Your task to perform on an android device: Go to Google maps Image 0: 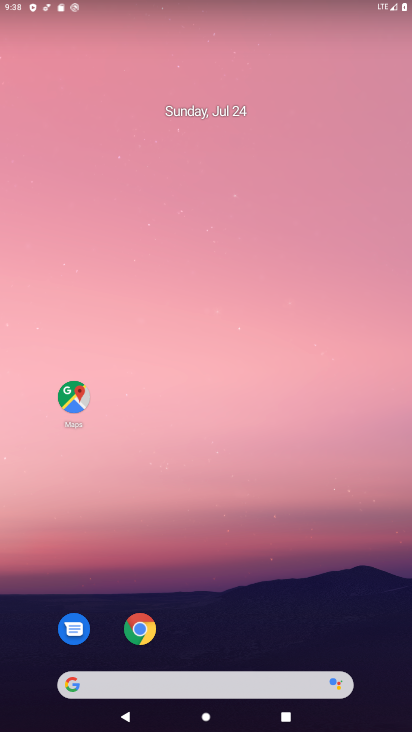
Step 0: press home button
Your task to perform on an android device: Go to Google maps Image 1: 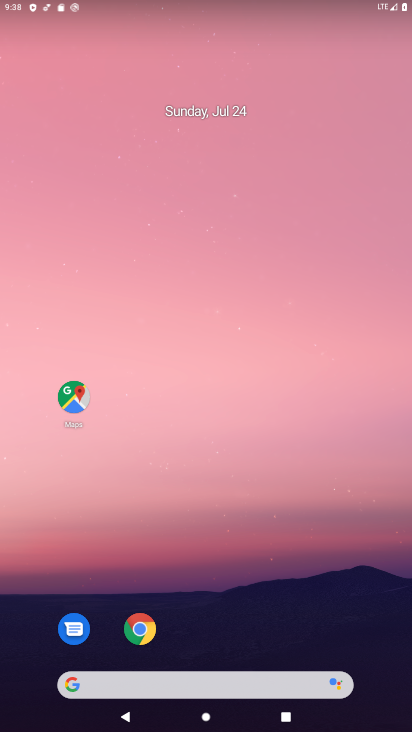
Step 1: click (69, 399)
Your task to perform on an android device: Go to Google maps Image 2: 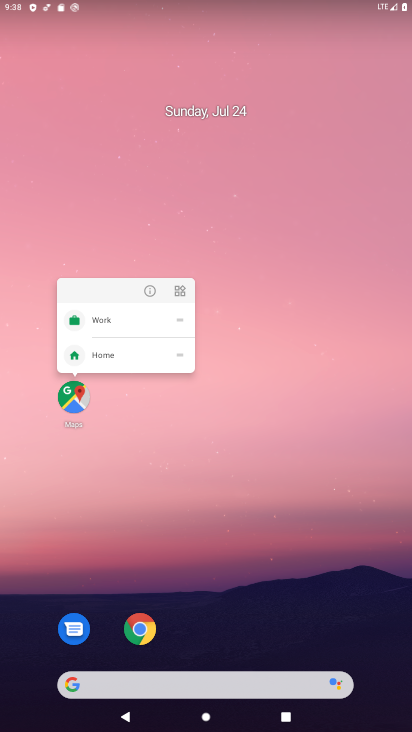
Step 2: click (69, 394)
Your task to perform on an android device: Go to Google maps Image 3: 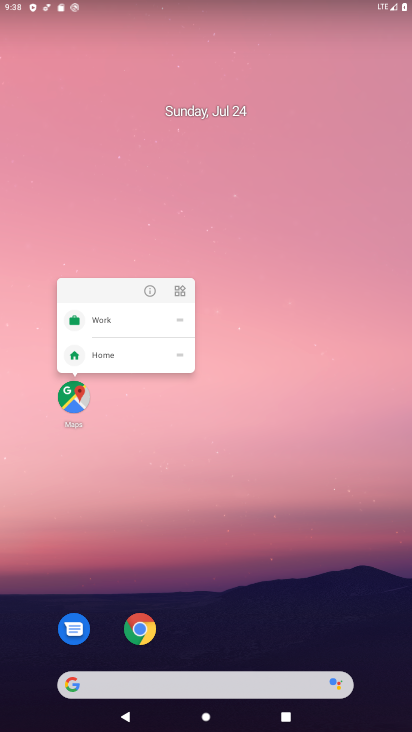
Step 3: click (69, 393)
Your task to perform on an android device: Go to Google maps Image 4: 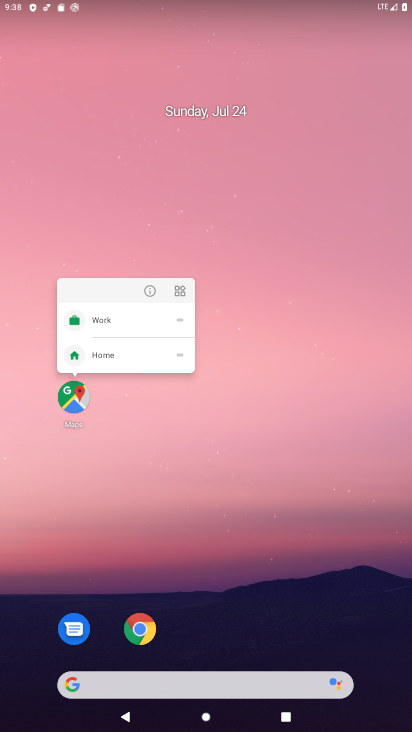
Step 4: click (69, 393)
Your task to perform on an android device: Go to Google maps Image 5: 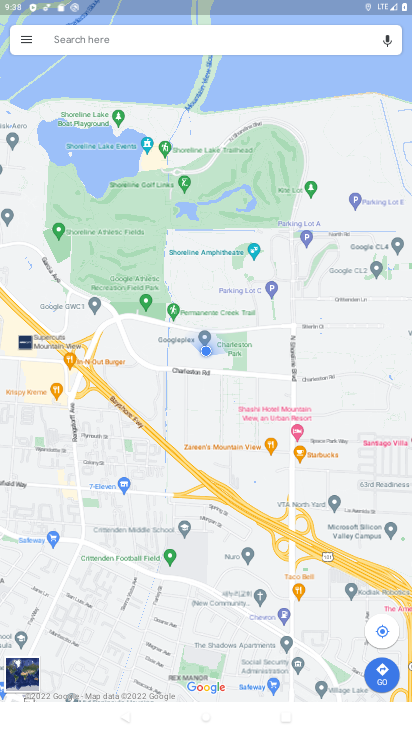
Step 5: task complete